Your task to perform on an android device: change the upload size in google photos Image 0: 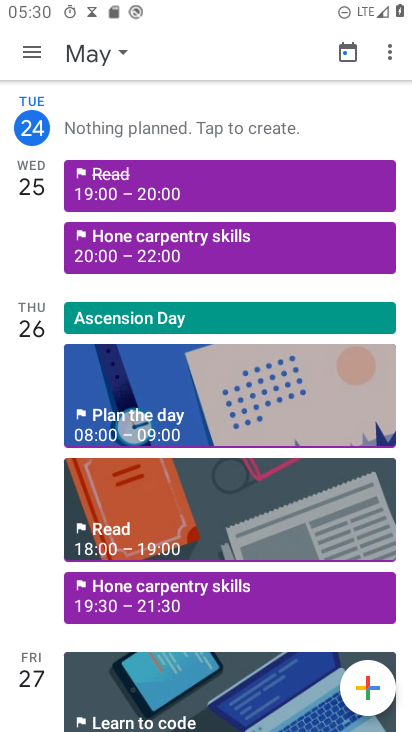
Step 0: press back button
Your task to perform on an android device: change the upload size in google photos Image 1: 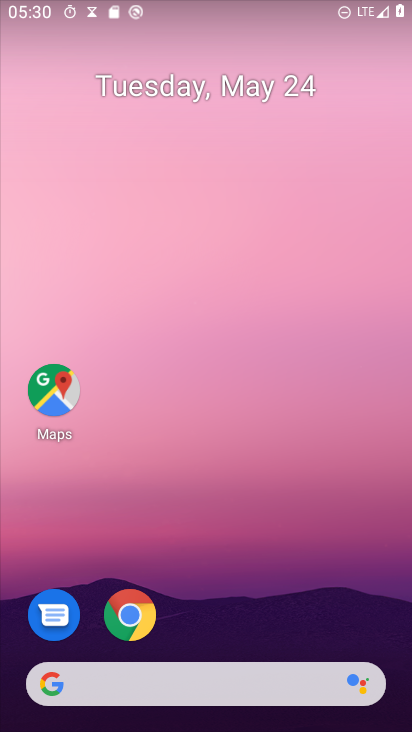
Step 1: drag from (215, 642) to (293, 90)
Your task to perform on an android device: change the upload size in google photos Image 2: 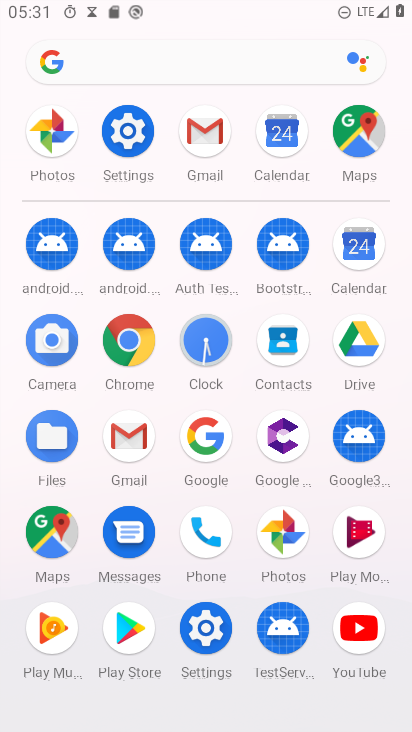
Step 2: click (269, 527)
Your task to perform on an android device: change the upload size in google photos Image 3: 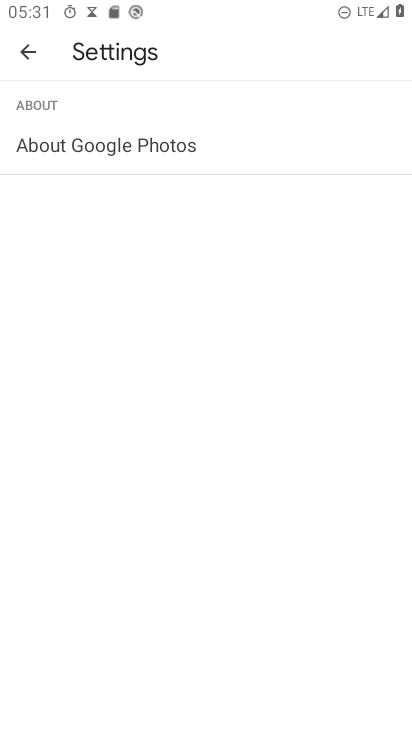
Step 3: click (37, 45)
Your task to perform on an android device: change the upload size in google photos Image 4: 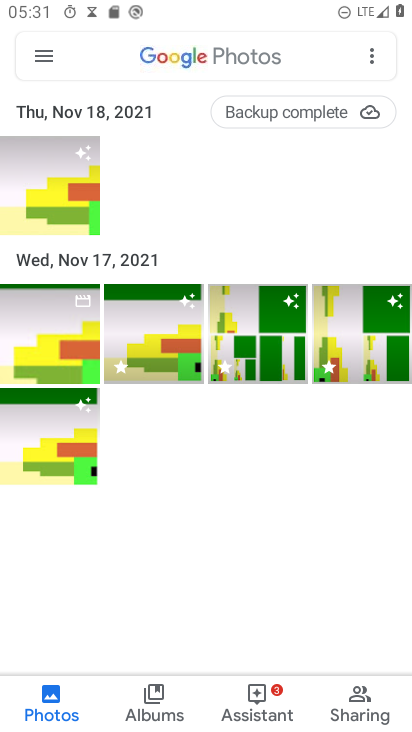
Step 4: click (36, 45)
Your task to perform on an android device: change the upload size in google photos Image 5: 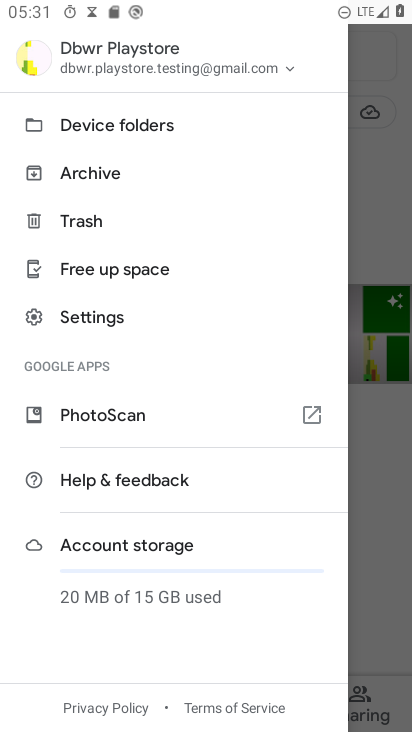
Step 5: click (100, 321)
Your task to perform on an android device: change the upload size in google photos Image 6: 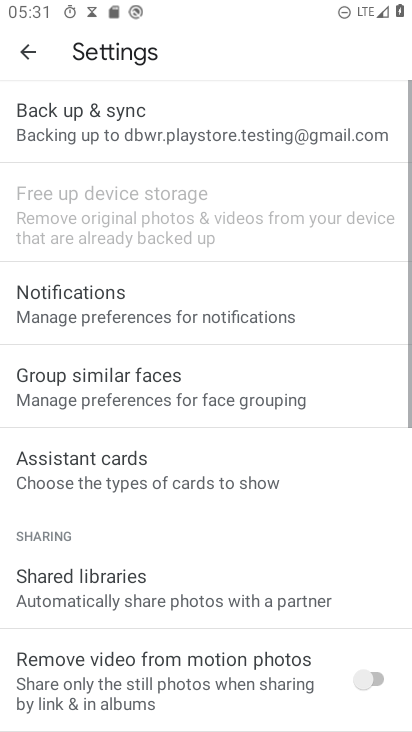
Step 6: click (127, 121)
Your task to perform on an android device: change the upload size in google photos Image 7: 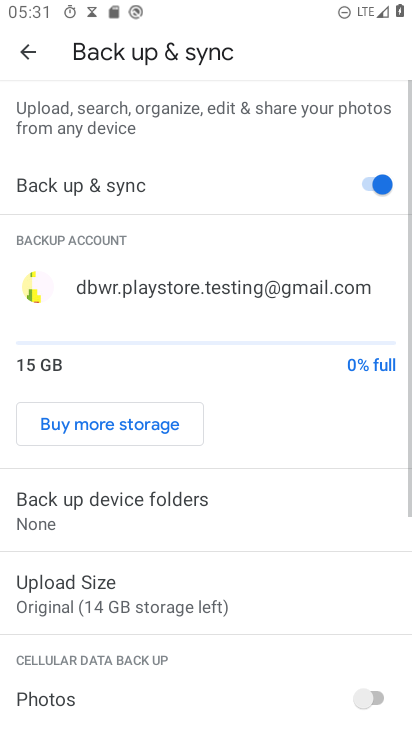
Step 7: click (59, 592)
Your task to perform on an android device: change the upload size in google photos Image 8: 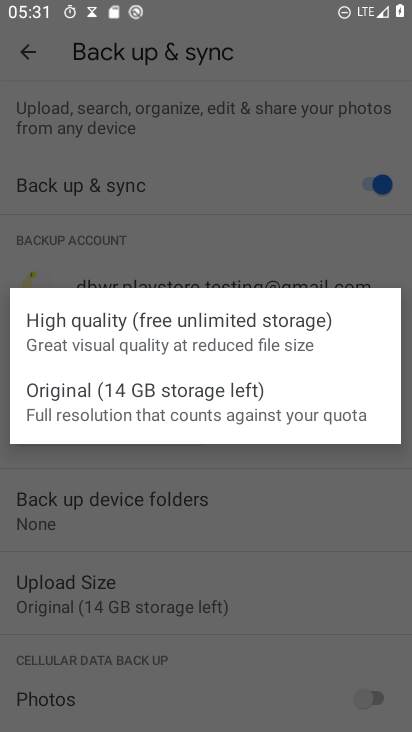
Step 8: click (71, 347)
Your task to perform on an android device: change the upload size in google photos Image 9: 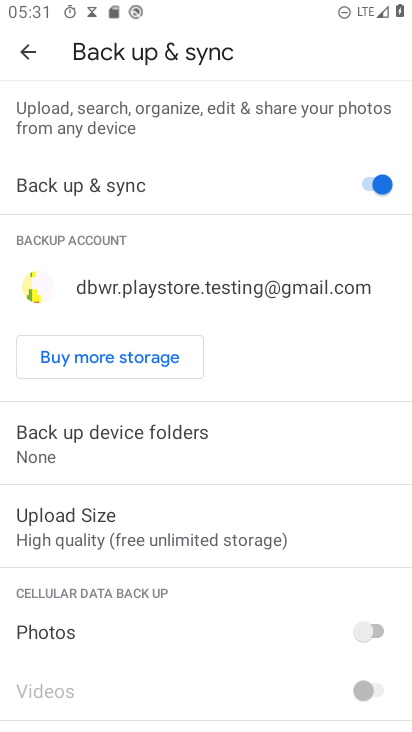
Step 9: task complete